Your task to perform on an android device: delete browsing data in the chrome app Image 0: 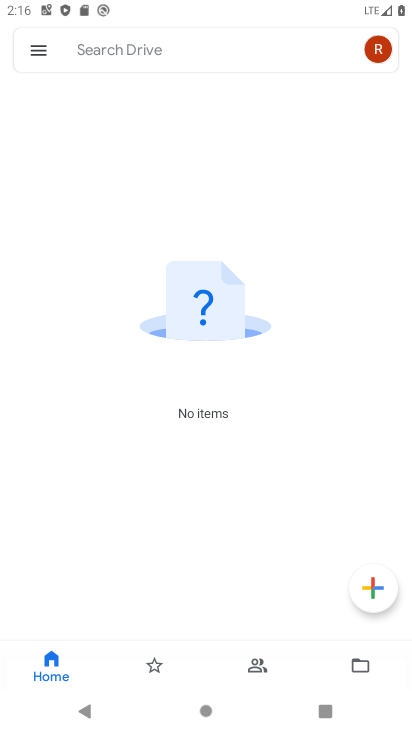
Step 0: press home button
Your task to perform on an android device: delete browsing data in the chrome app Image 1: 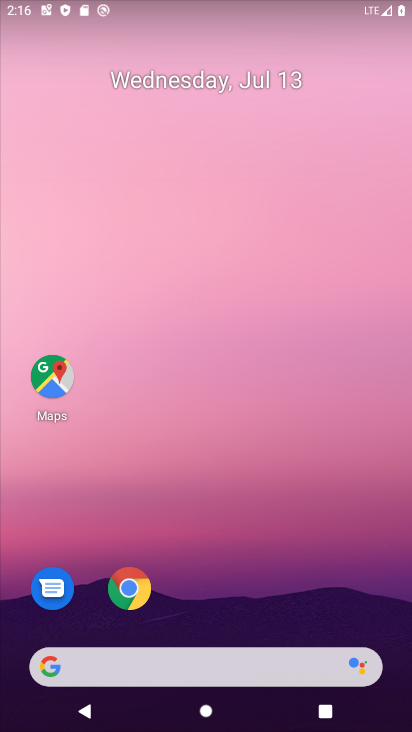
Step 1: click (136, 589)
Your task to perform on an android device: delete browsing data in the chrome app Image 2: 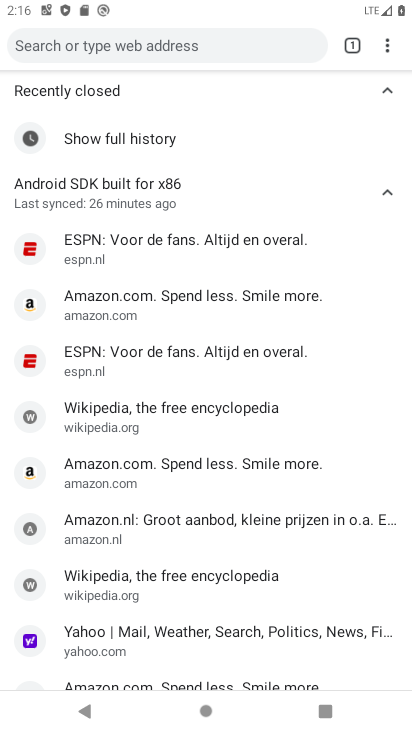
Step 2: click (388, 40)
Your task to perform on an android device: delete browsing data in the chrome app Image 3: 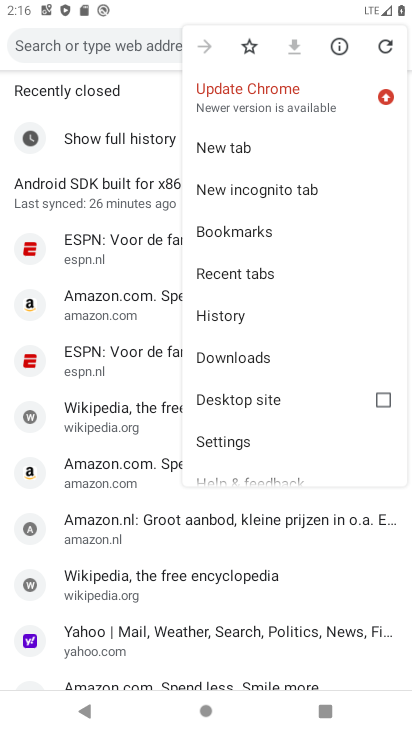
Step 3: click (218, 314)
Your task to perform on an android device: delete browsing data in the chrome app Image 4: 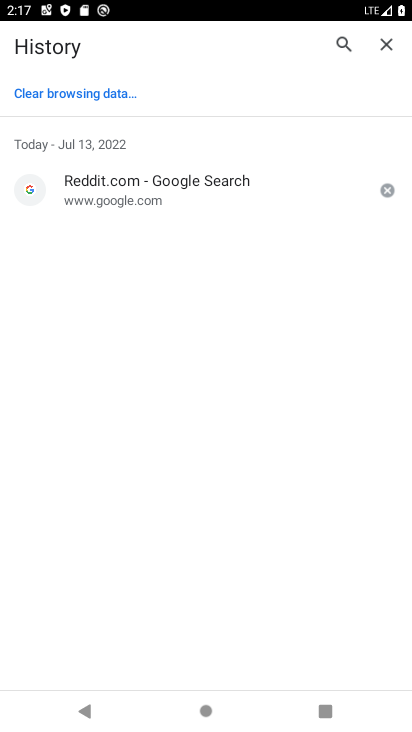
Step 4: click (95, 93)
Your task to perform on an android device: delete browsing data in the chrome app Image 5: 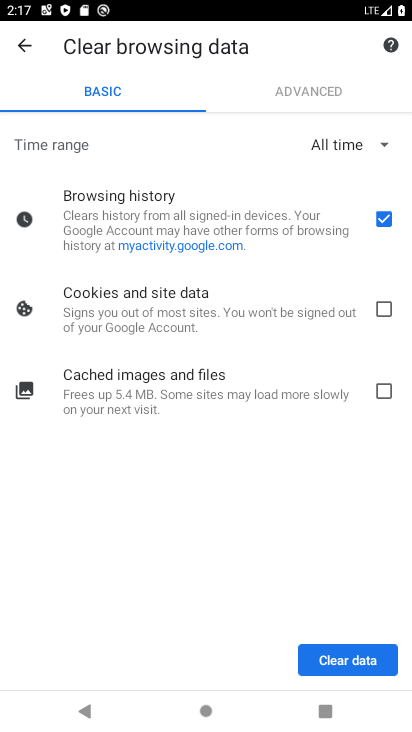
Step 5: click (333, 654)
Your task to perform on an android device: delete browsing data in the chrome app Image 6: 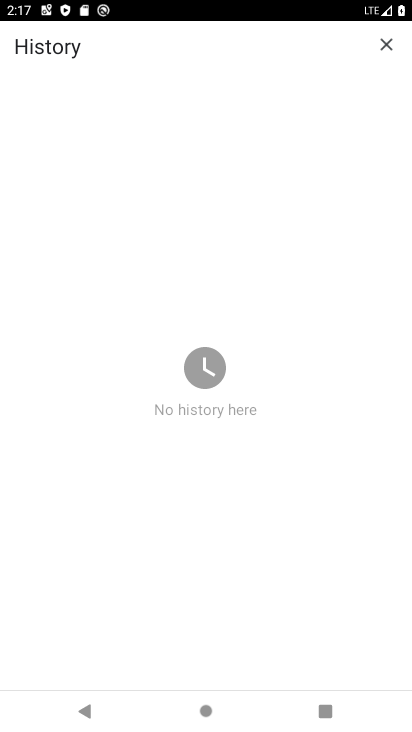
Step 6: task complete